Your task to perform on an android device: Go to Amazon Image 0: 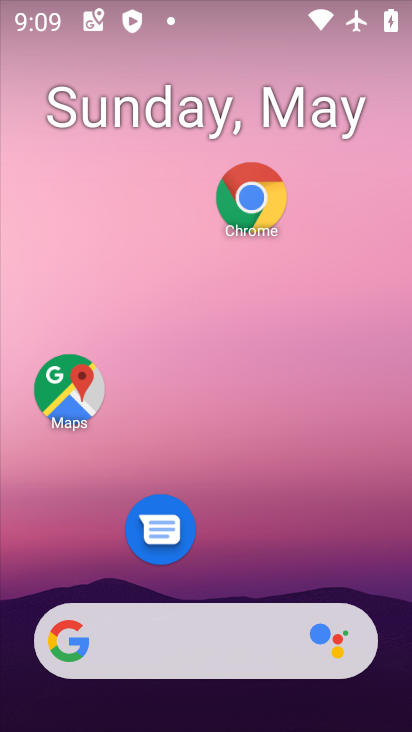
Step 0: click (251, 204)
Your task to perform on an android device: Go to Amazon Image 1: 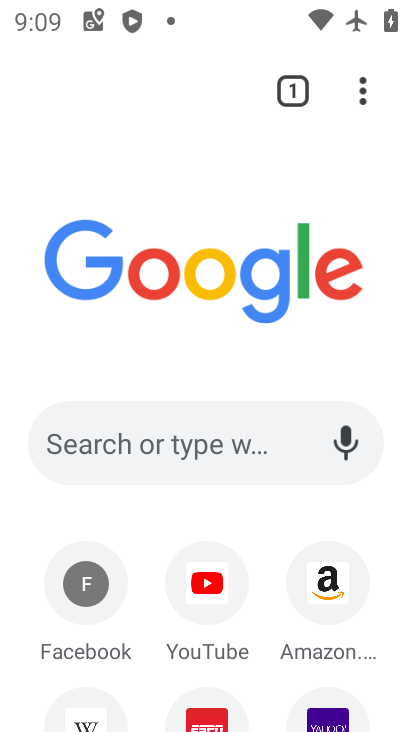
Step 1: click (323, 574)
Your task to perform on an android device: Go to Amazon Image 2: 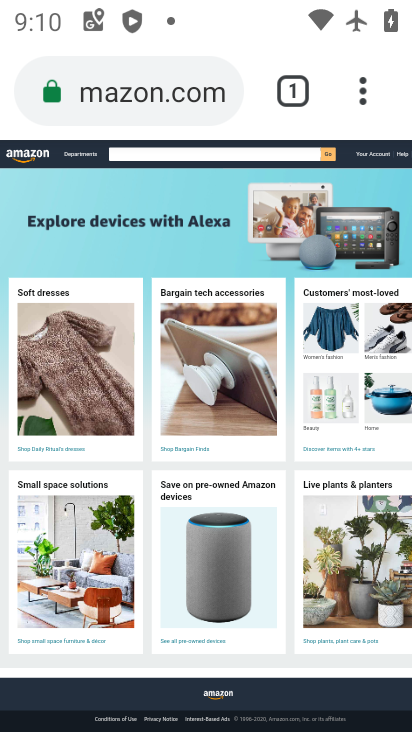
Step 2: task complete